Your task to perform on an android device: open app "Move to iOS" (install if not already installed) and go to login screen Image 0: 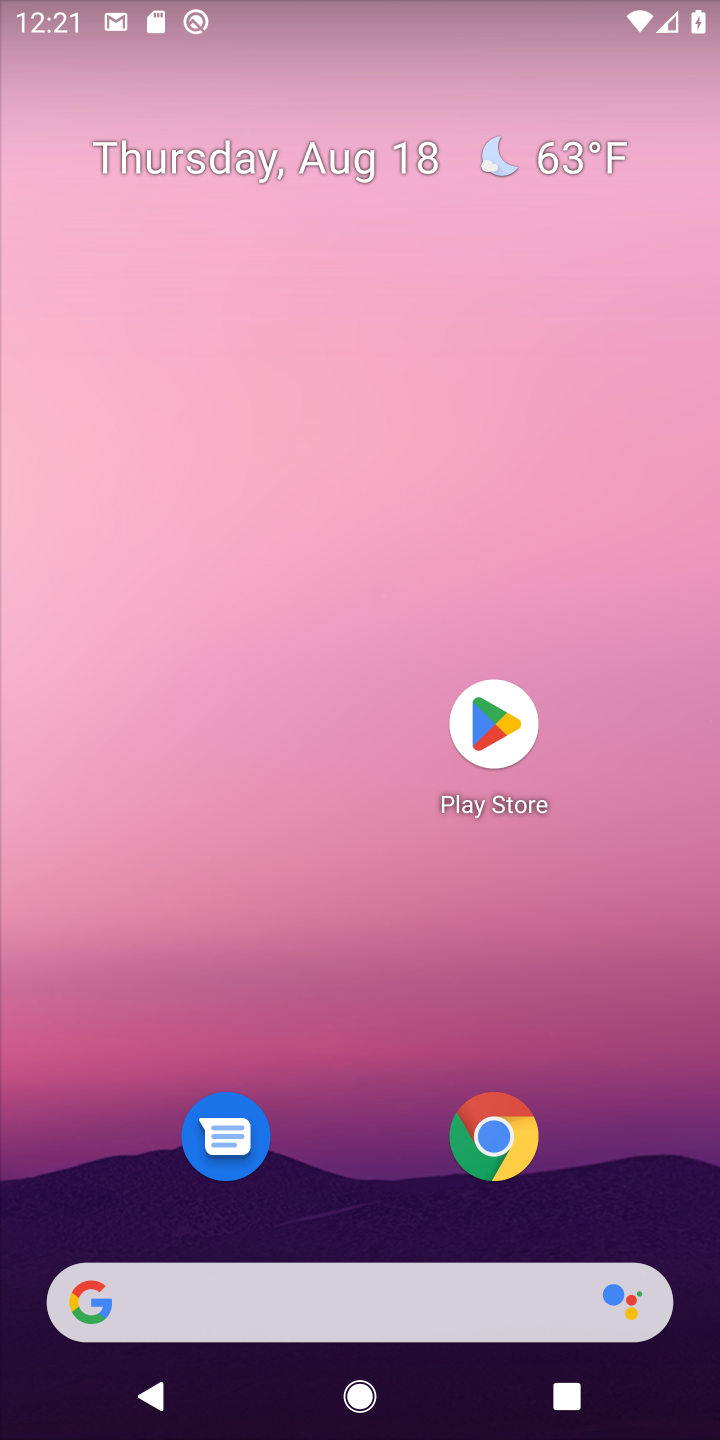
Step 0: click (485, 725)
Your task to perform on an android device: open app "Move to iOS" (install if not already installed) and go to login screen Image 1: 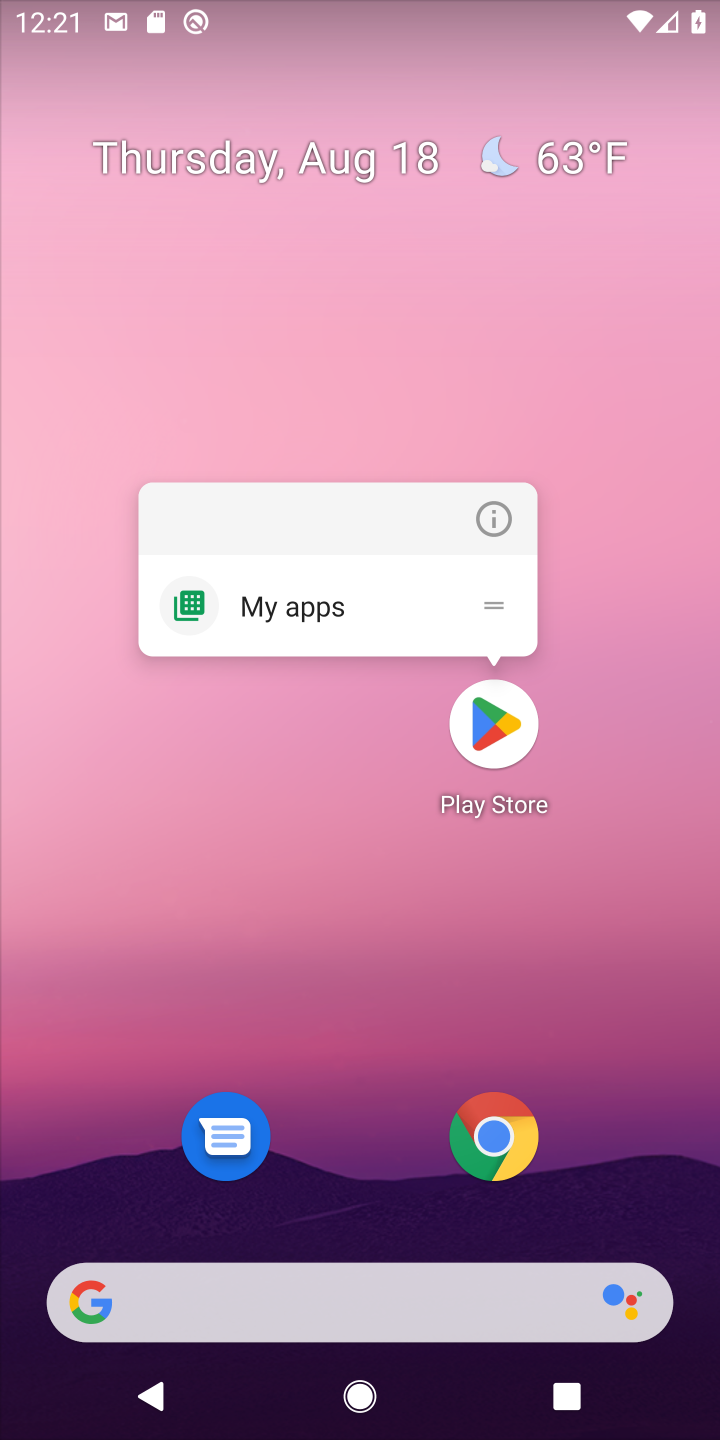
Step 1: click (485, 727)
Your task to perform on an android device: open app "Move to iOS" (install if not already installed) and go to login screen Image 2: 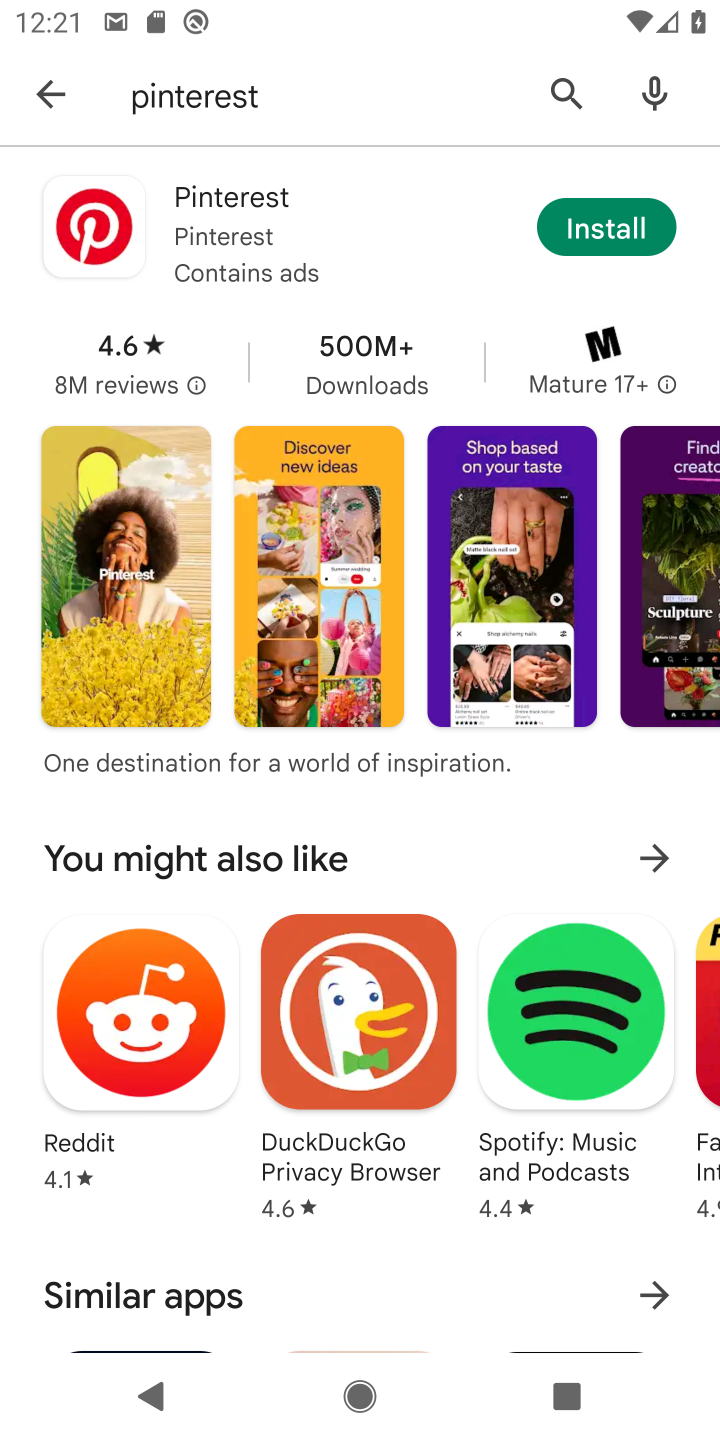
Step 2: click (566, 95)
Your task to perform on an android device: open app "Move to iOS" (install if not already installed) and go to login screen Image 3: 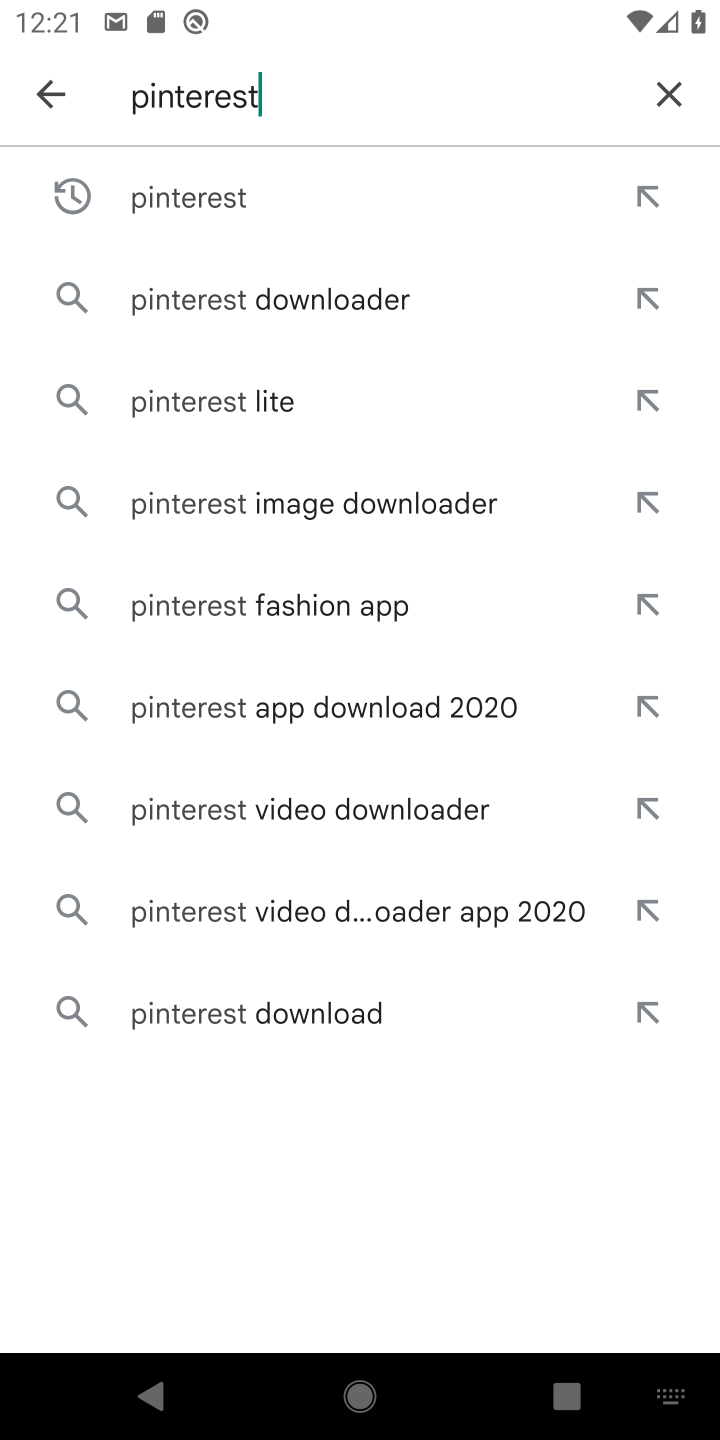
Step 3: click (665, 86)
Your task to perform on an android device: open app "Move to iOS" (install if not already installed) and go to login screen Image 4: 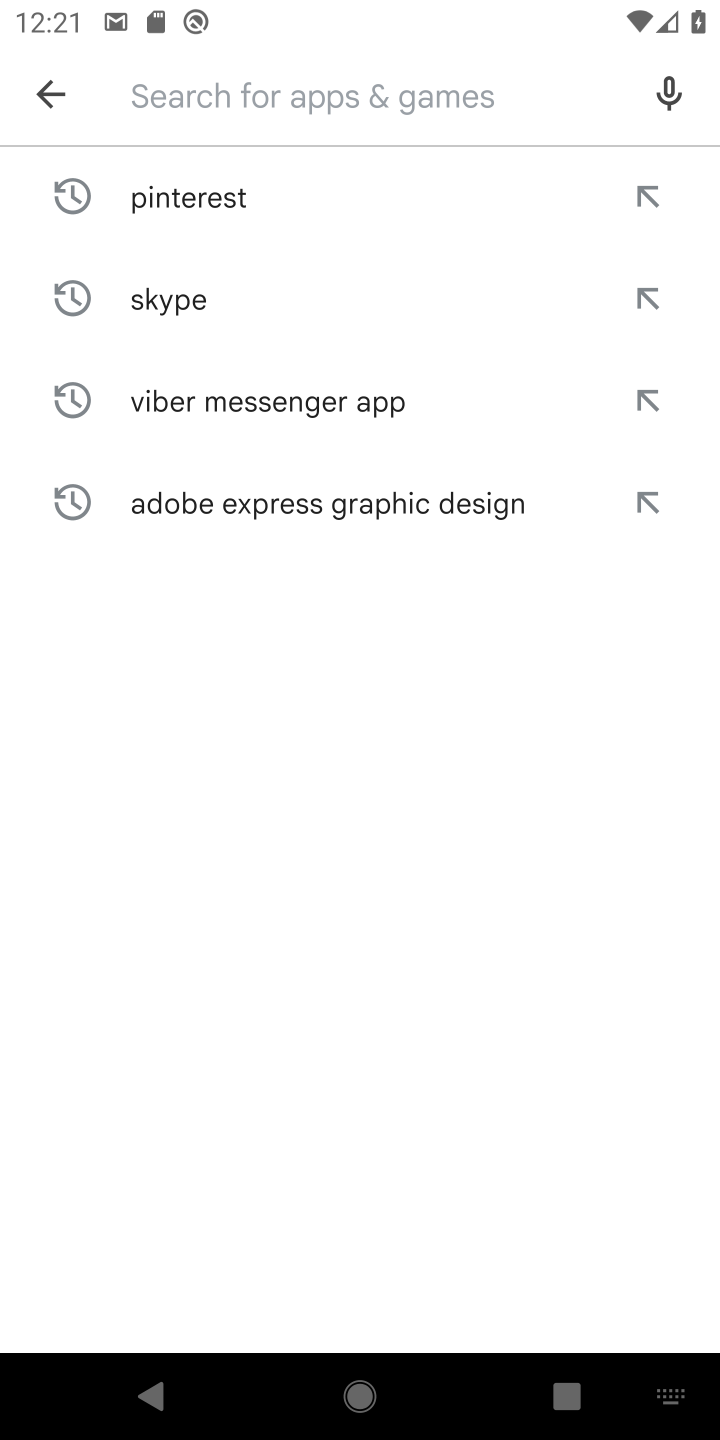
Step 4: type "Move to iOS"
Your task to perform on an android device: open app "Move to iOS" (install if not already installed) and go to login screen Image 5: 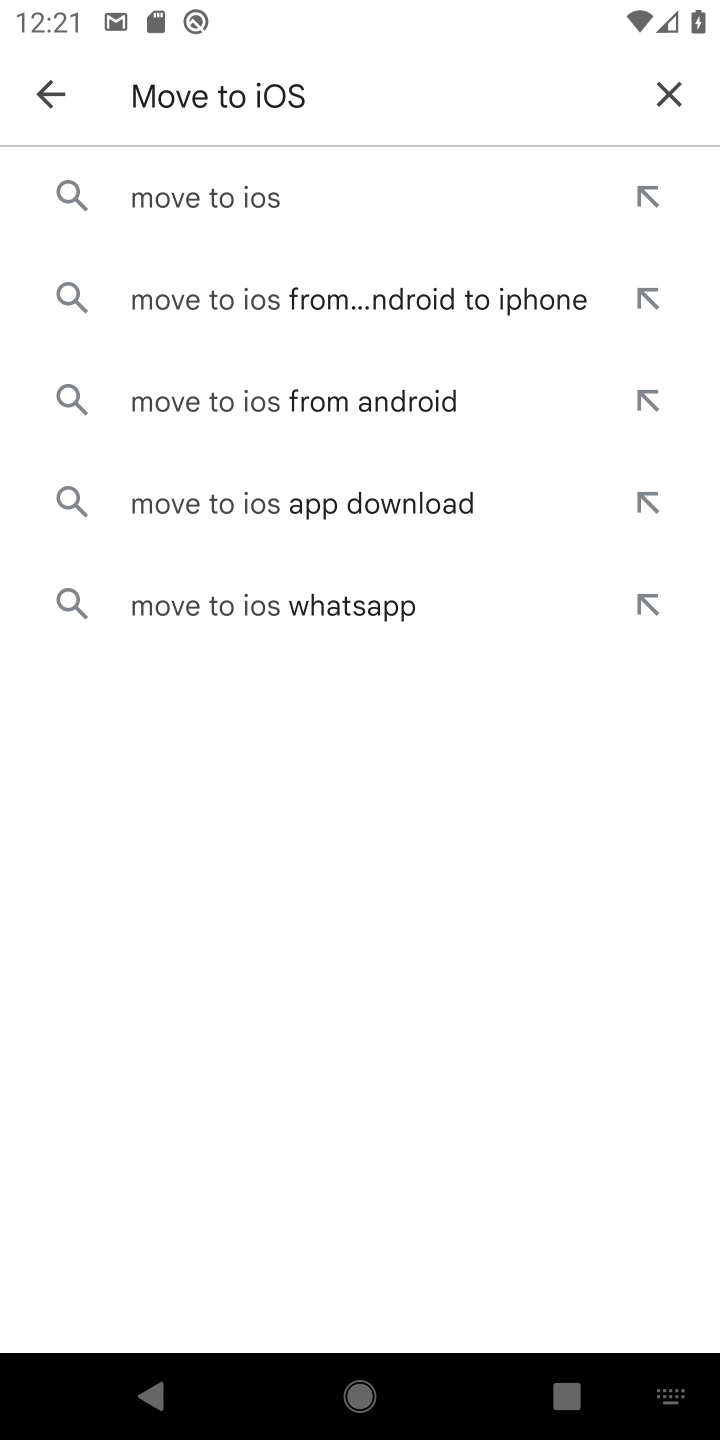
Step 5: click (243, 199)
Your task to perform on an android device: open app "Move to iOS" (install if not already installed) and go to login screen Image 6: 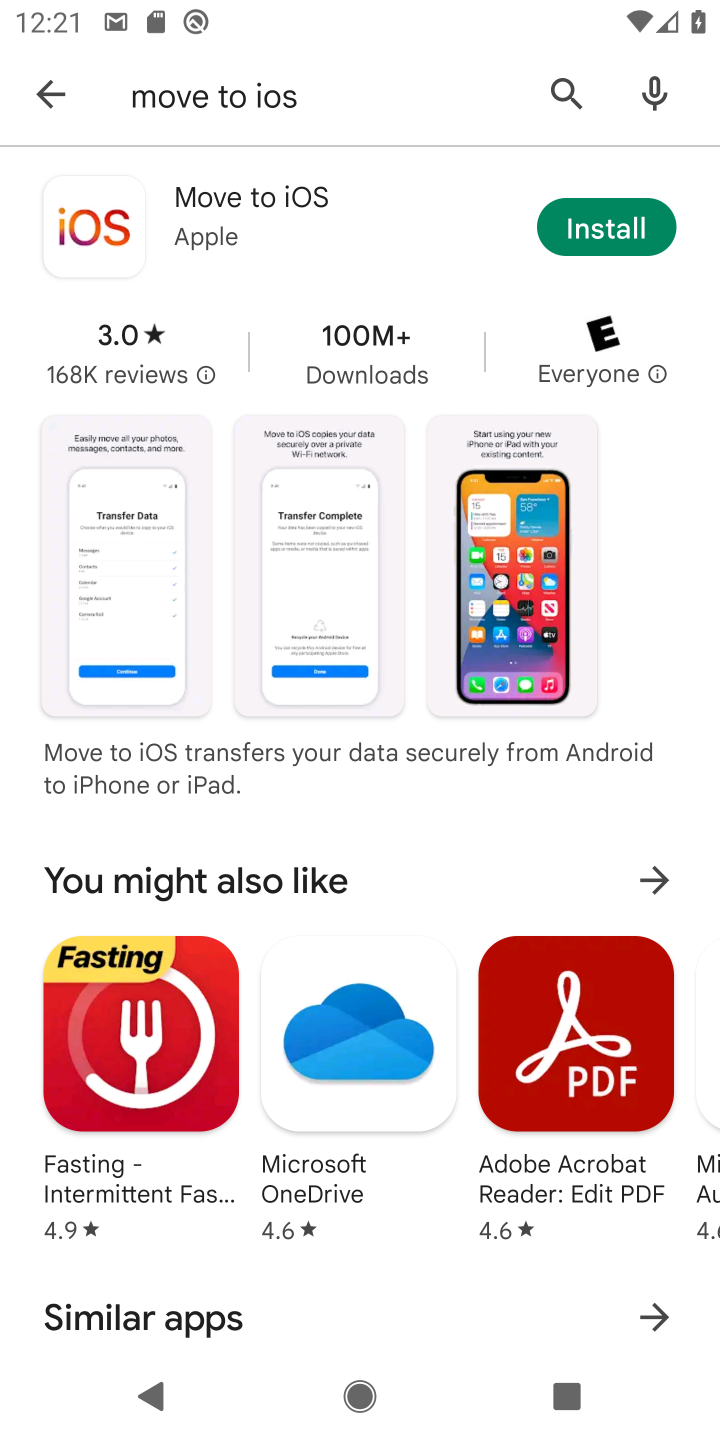
Step 6: click (618, 228)
Your task to perform on an android device: open app "Move to iOS" (install if not already installed) and go to login screen Image 7: 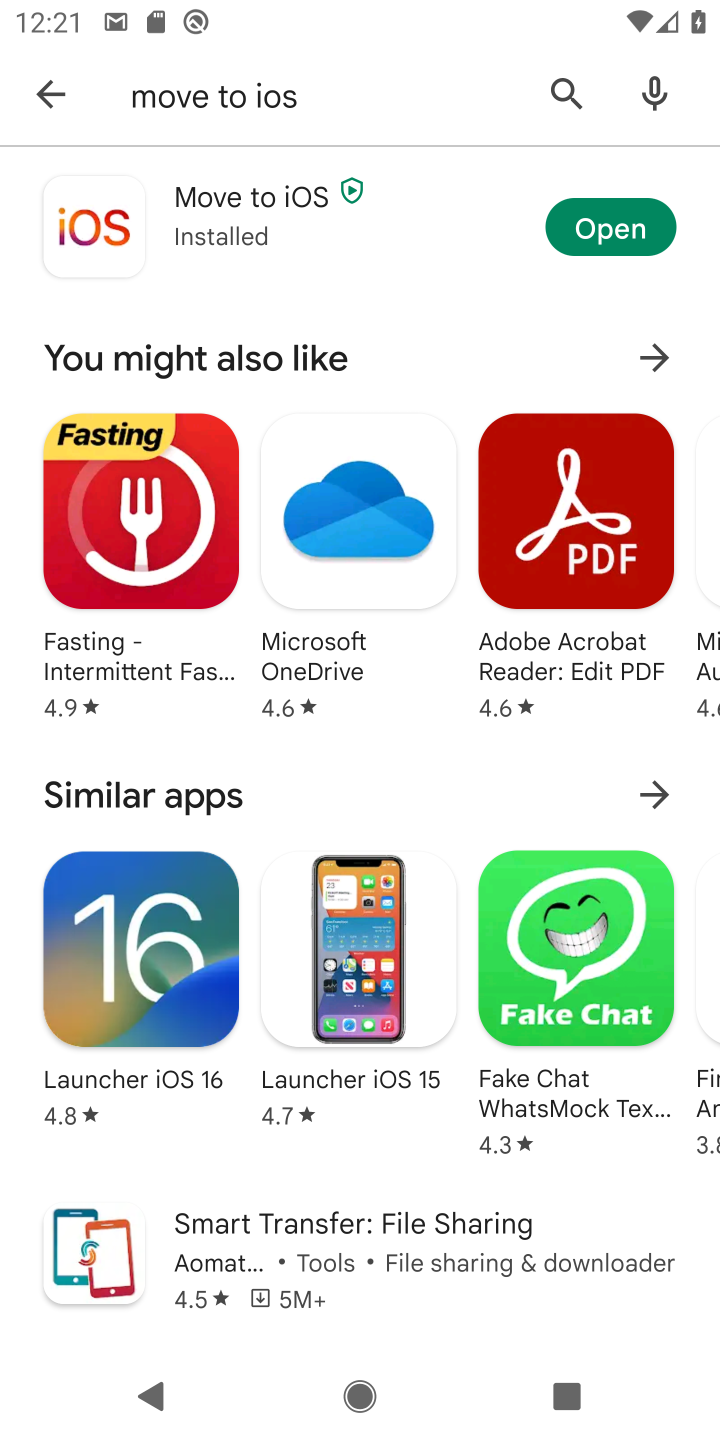
Step 7: click (579, 233)
Your task to perform on an android device: open app "Move to iOS" (install if not already installed) and go to login screen Image 8: 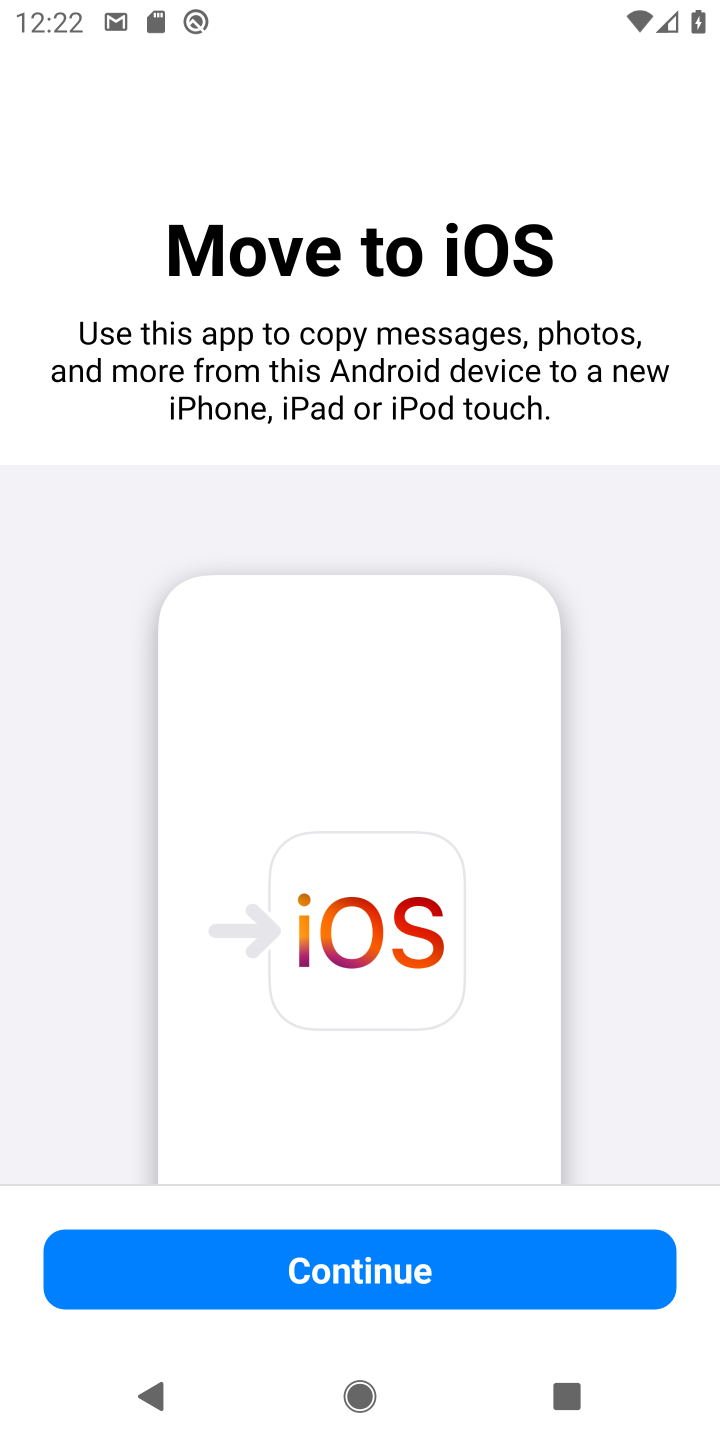
Step 8: click (433, 1285)
Your task to perform on an android device: open app "Move to iOS" (install if not already installed) and go to login screen Image 9: 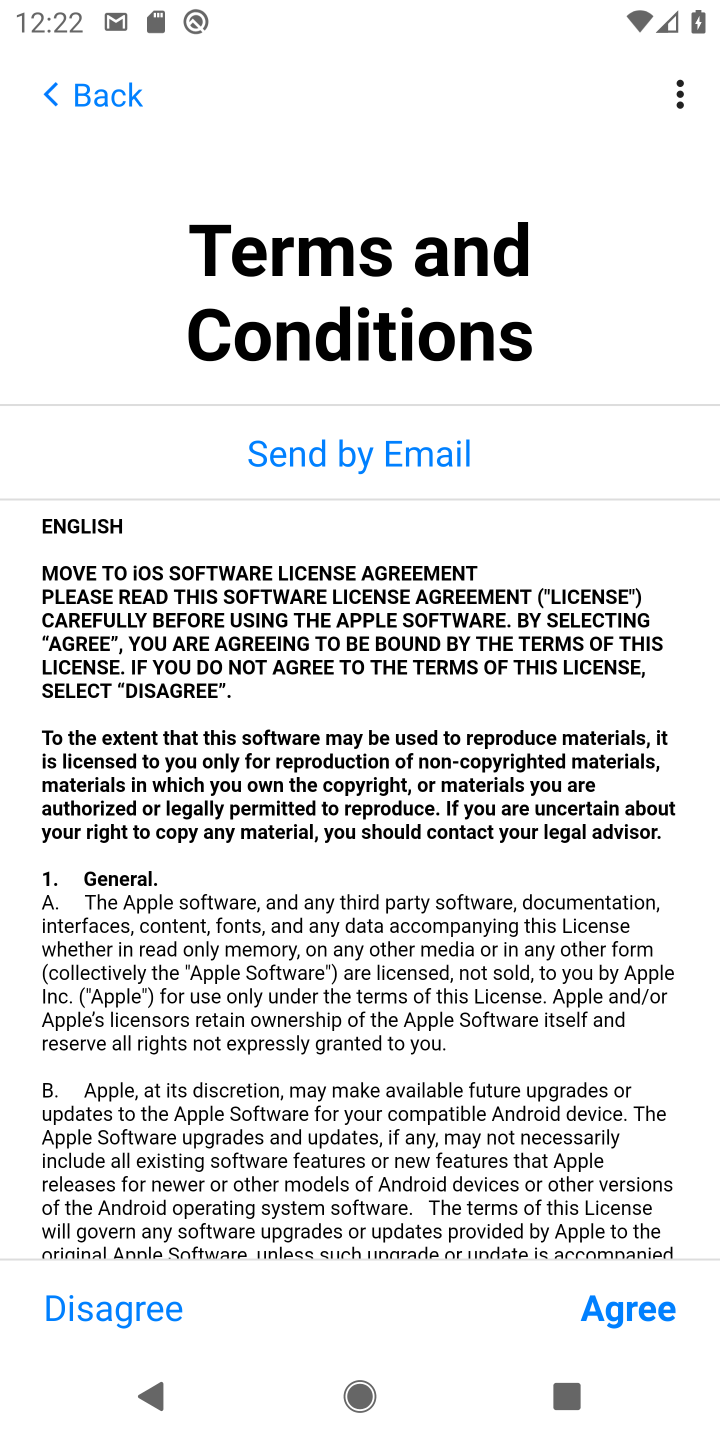
Step 9: click (610, 1313)
Your task to perform on an android device: open app "Move to iOS" (install if not already installed) and go to login screen Image 10: 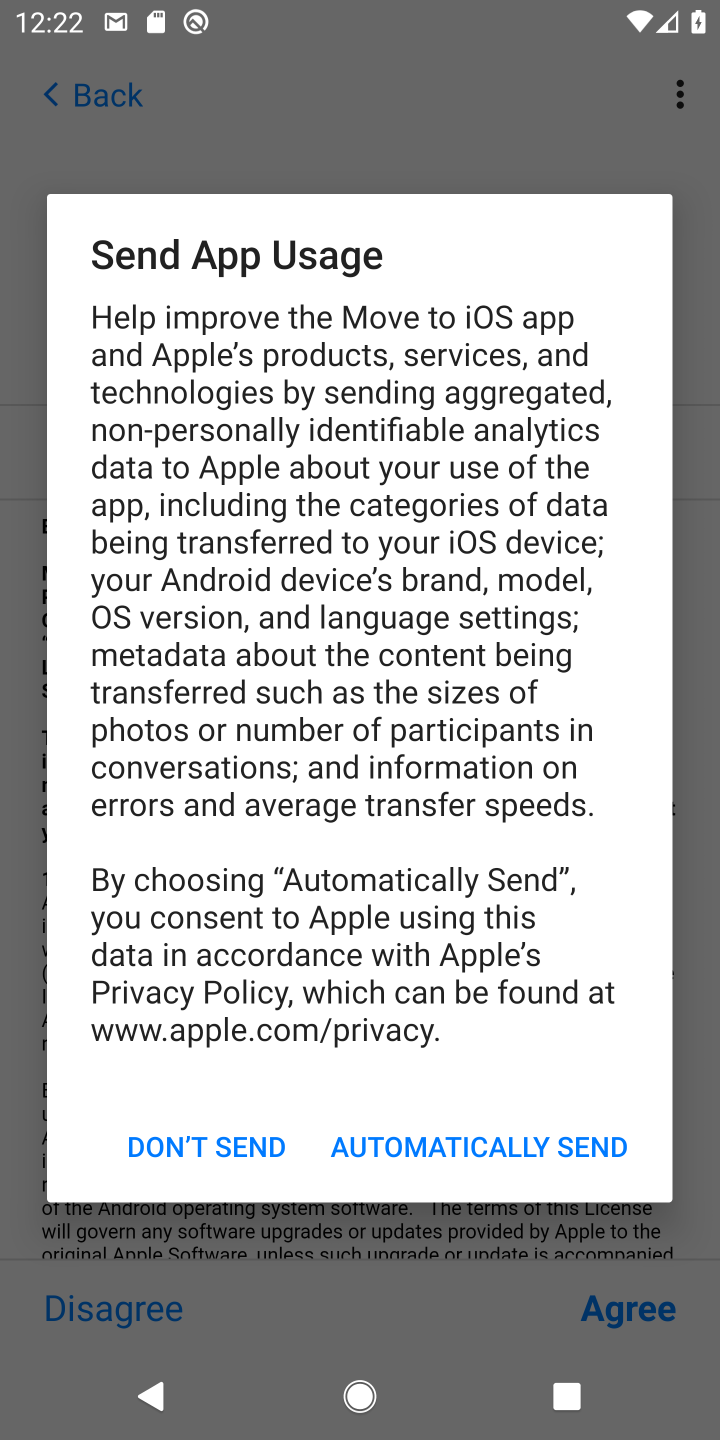
Step 10: click (227, 1153)
Your task to perform on an android device: open app "Move to iOS" (install if not already installed) and go to login screen Image 11: 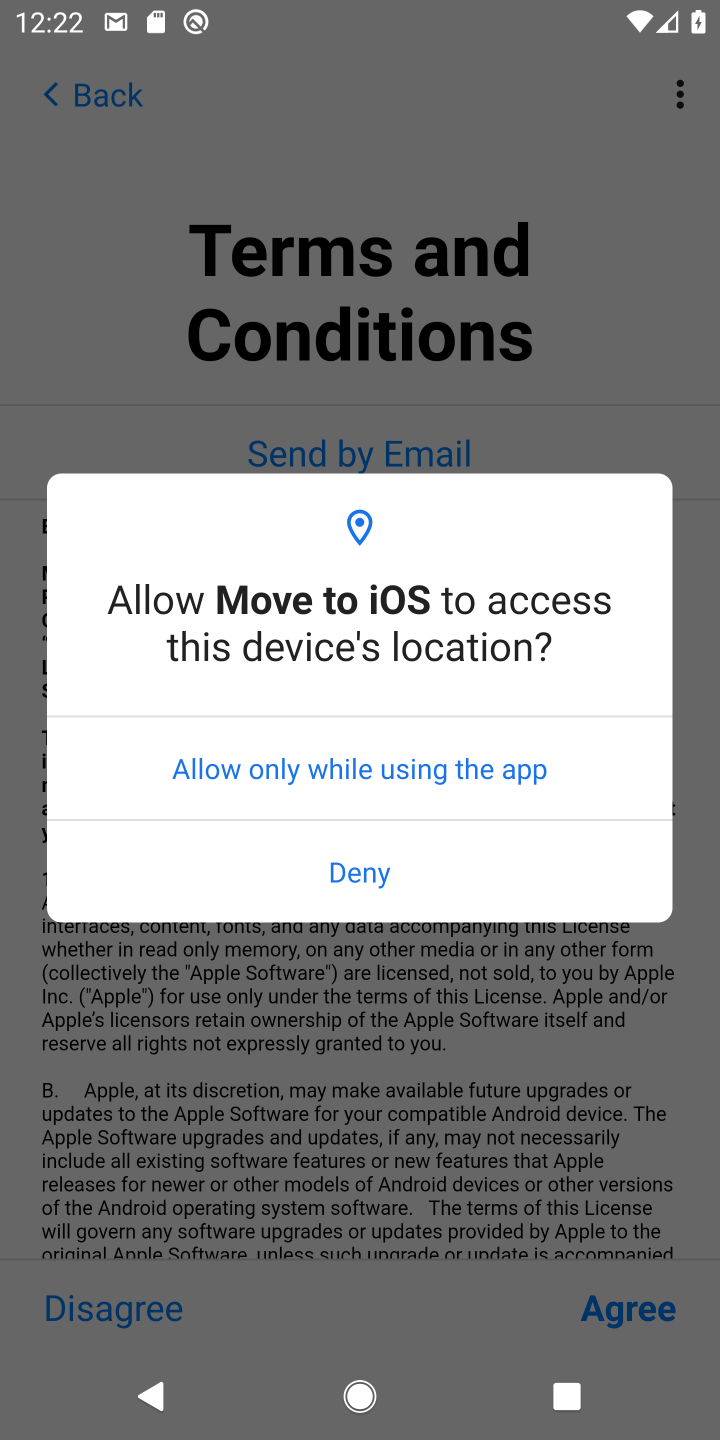
Step 11: task complete